Your task to perform on an android device: Go to privacy settings Image 0: 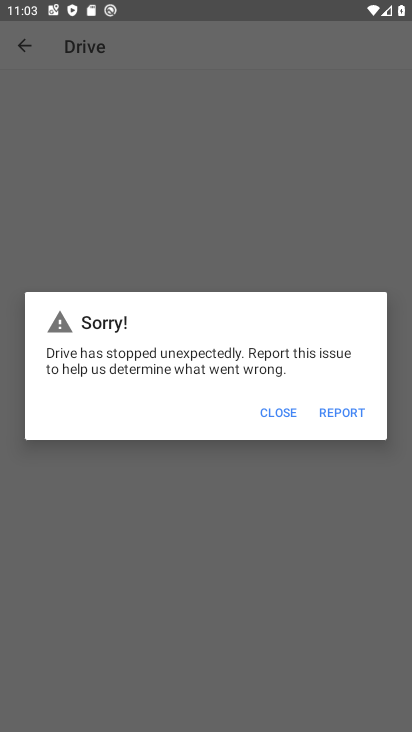
Step 0: press back button
Your task to perform on an android device: Go to privacy settings Image 1: 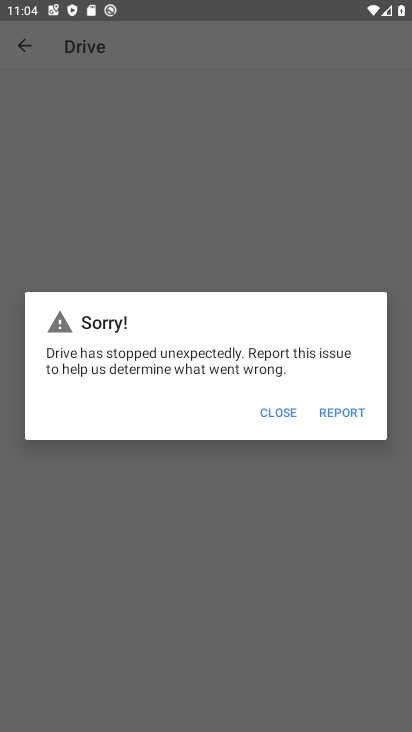
Step 1: press home button
Your task to perform on an android device: Go to privacy settings Image 2: 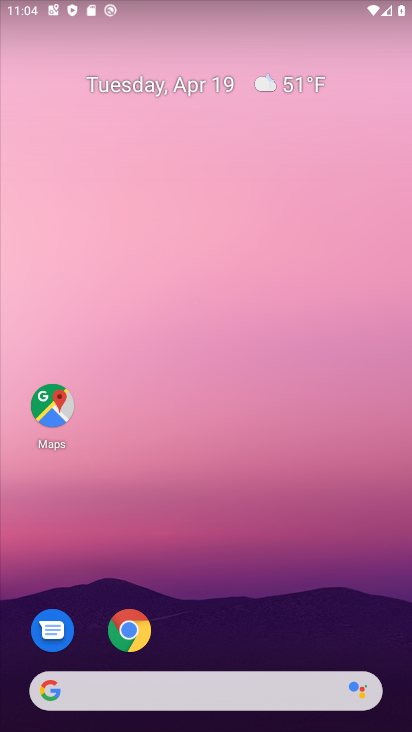
Step 2: click (138, 626)
Your task to perform on an android device: Go to privacy settings Image 3: 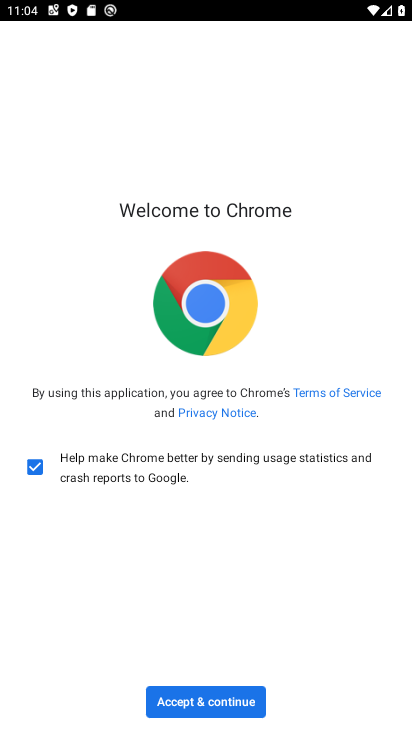
Step 3: click (186, 697)
Your task to perform on an android device: Go to privacy settings Image 4: 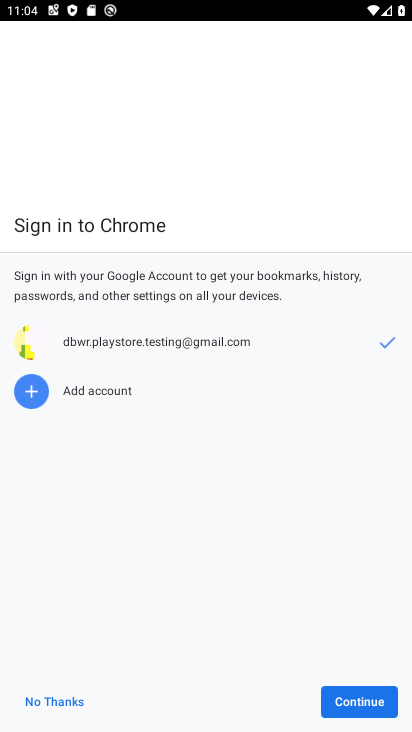
Step 4: click (337, 711)
Your task to perform on an android device: Go to privacy settings Image 5: 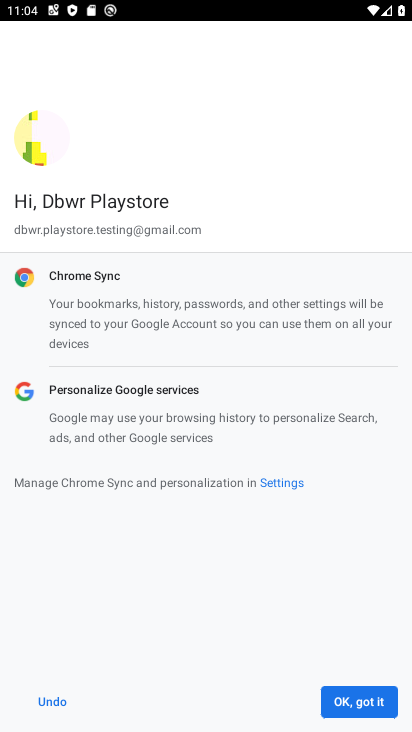
Step 5: click (337, 711)
Your task to perform on an android device: Go to privacy settings Image 6: 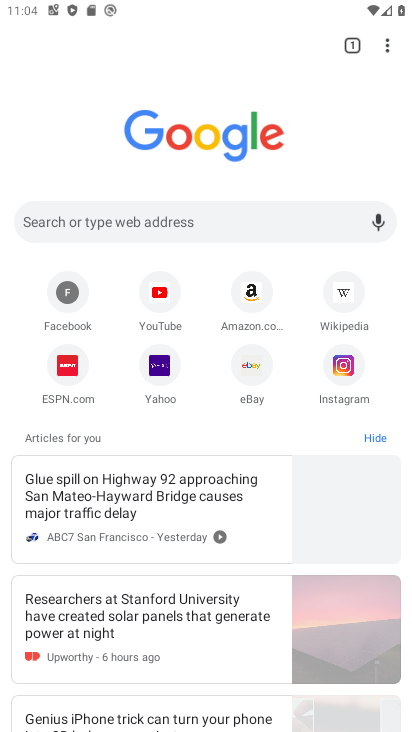
Step 6: click (394, 55)
Your task to perform on an android device: Go to privacy settings Image 7: 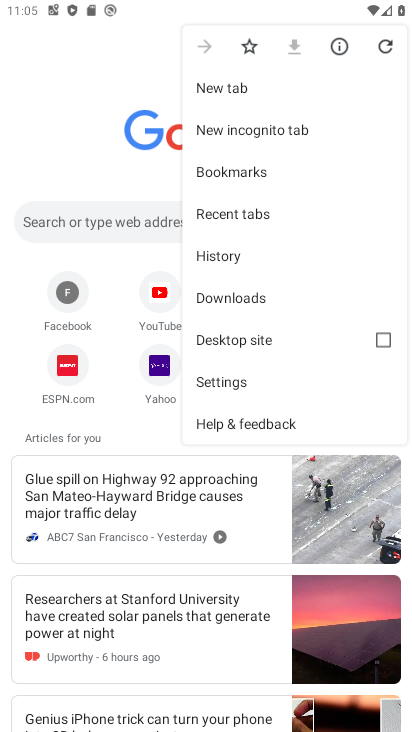
Step 7: click (254, 386)
Your task to perform on an android device: Go to privacy settings Image 8: 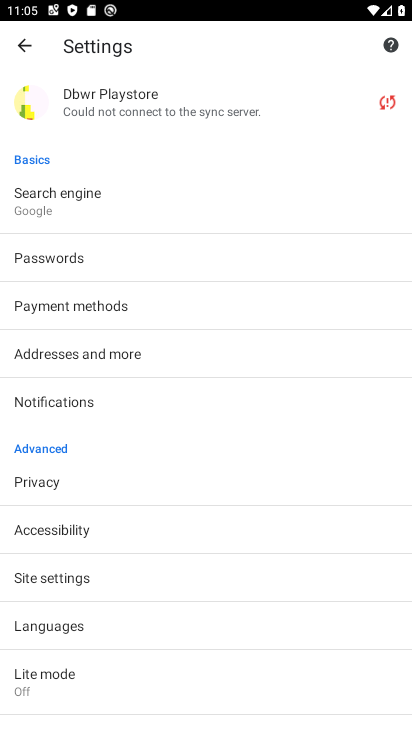
Step 8: click (267, 488)
Your task to perform on an android device: Go to privacy settings Image 9: 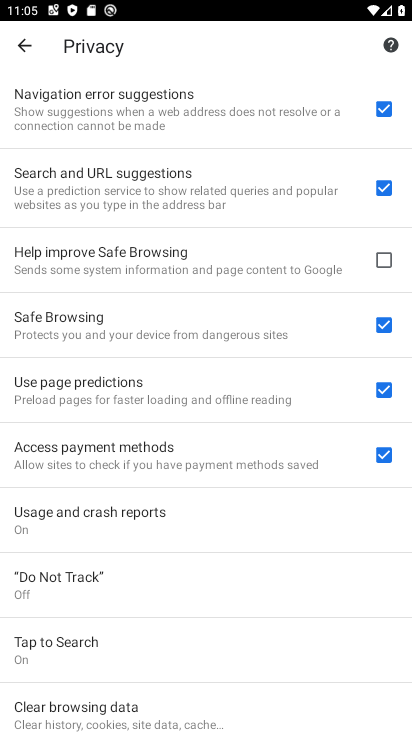
Step 9: task complete